Your task to perform on an android device: add a contact in the contacts app Image 0: 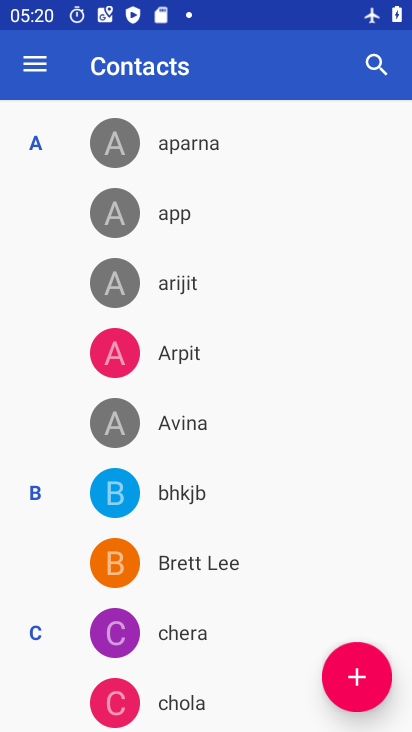
Step 0: press home button
Your task to perform on an android device: add a contact in the contacts app Image 1: 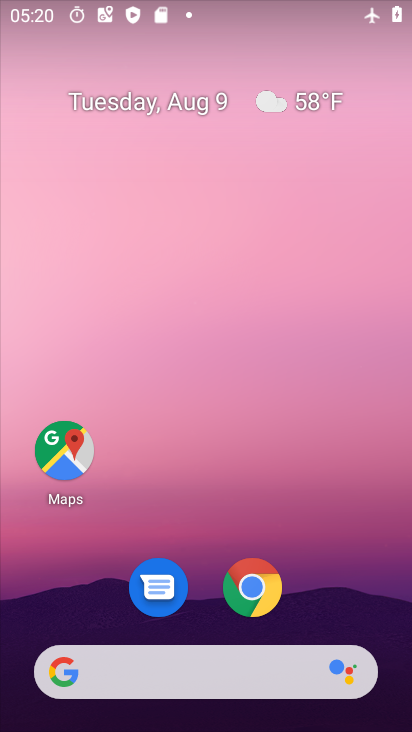
Step 1: drag from (264, 649) to (293, 138)
Your task to perform on an android device: add a contact in the contacts app Image 2: 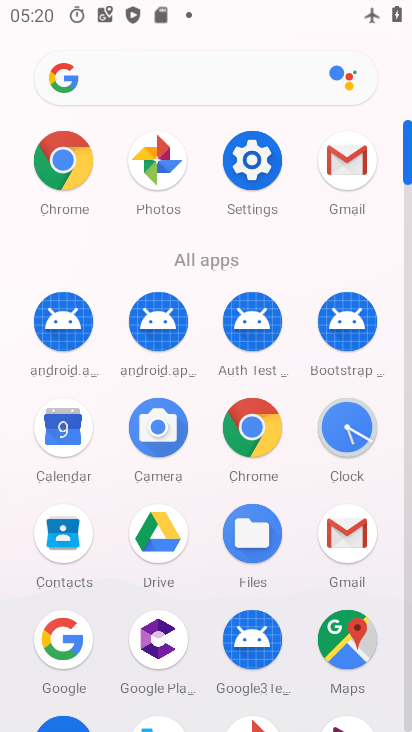
Step 2: click (59, 542)
Your task to perform on an android device: add a contact in the contacts app Image 3: 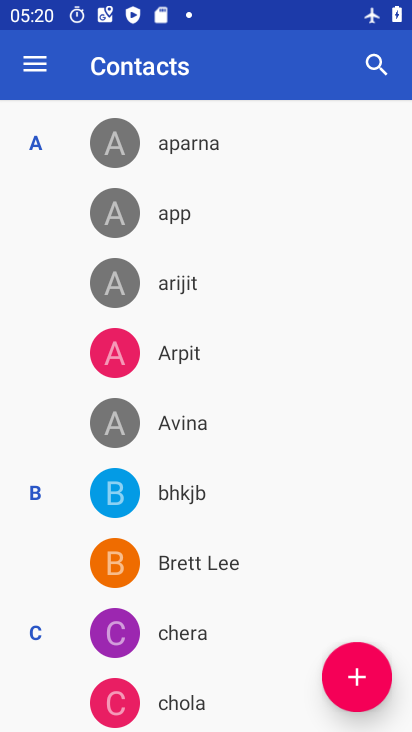
Step 3: click (362, 679)
Your task to perform on an android device: add a contact in the contacts app Image 4: 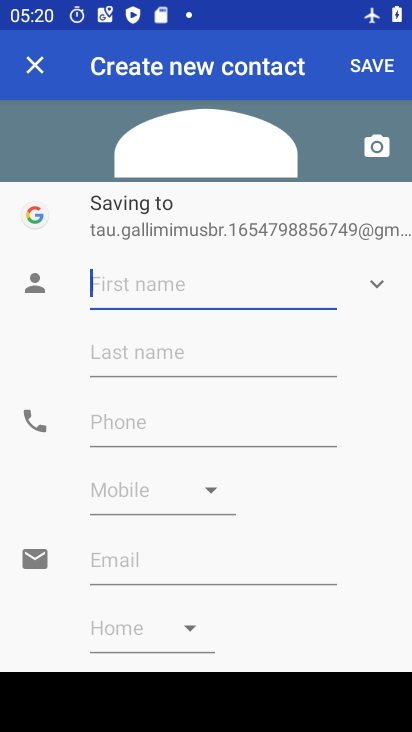
Step 4: type "djfs"
Your task to perform on an android device: add a contact in the contacts app Image 5: 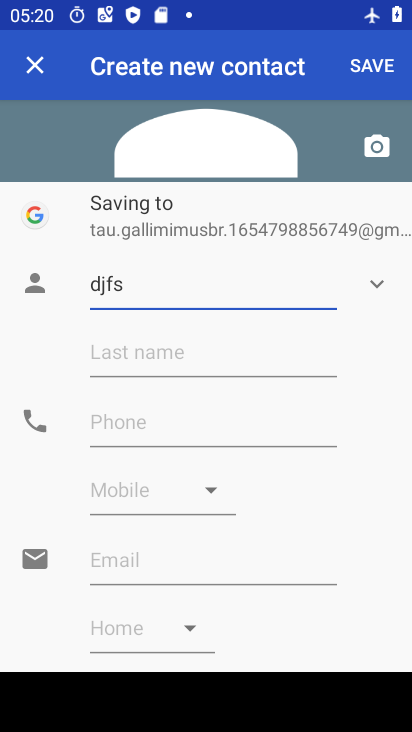
Step 5: click (266, 426)
Your task to perform on an android device: add a contact in the contacts app Image 6: 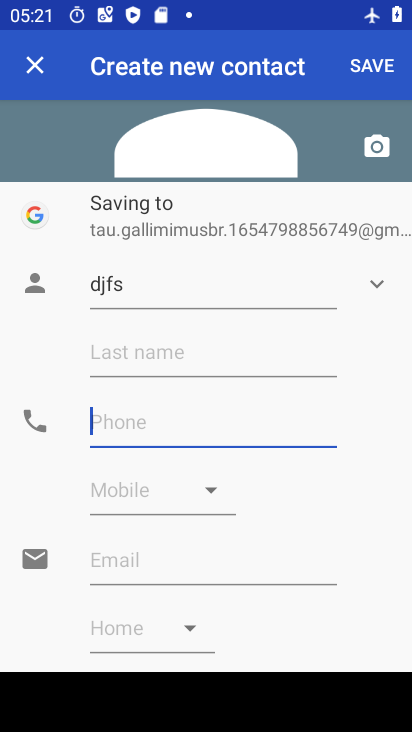
Step 6: type "578392"
Your task to perform on an android device: add a contact in the contacts app Image 7: 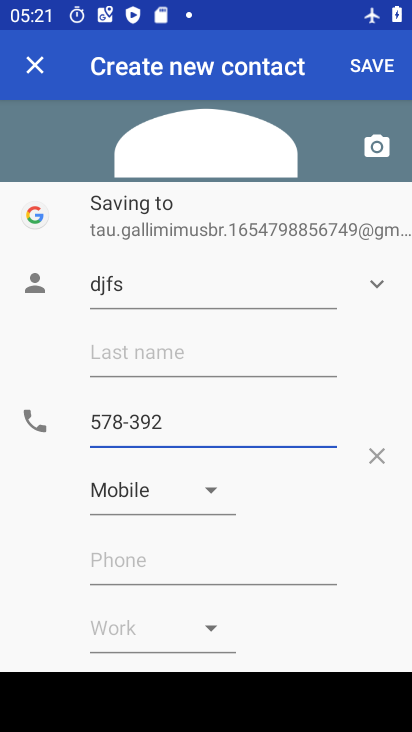
Step 7: click (370, 59)
Your task to perform on an android device: add a contact in the contacts app Image 8: 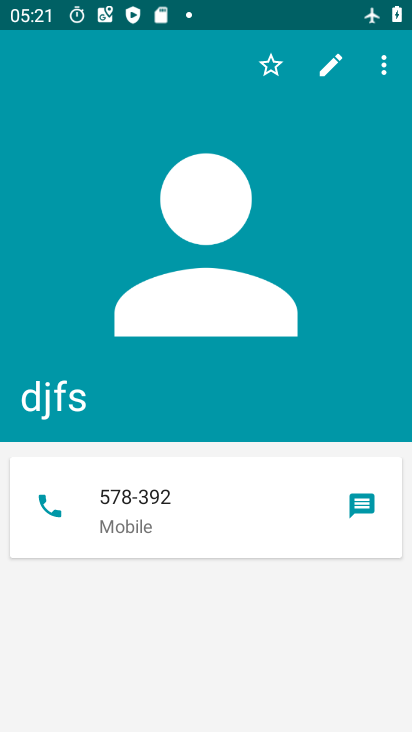
Step 8: task complete